Your task to perform on an android device: change notification settings in the gmail app Image 0: 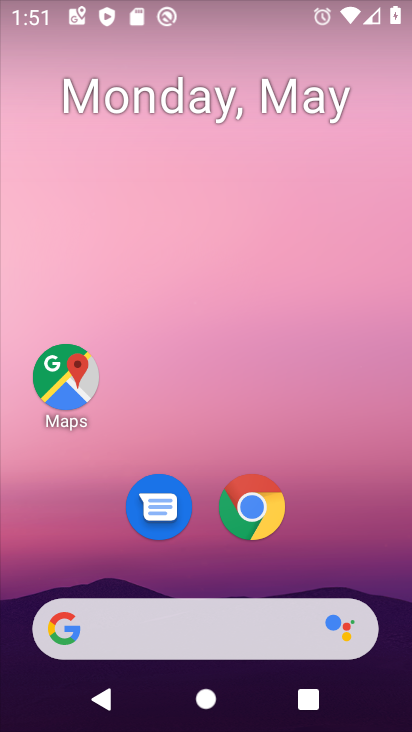
Step 0: drag from (241, 722) to (189, 14)
Your task to perform on an android device: change notification settings in the gmail app Image 1: 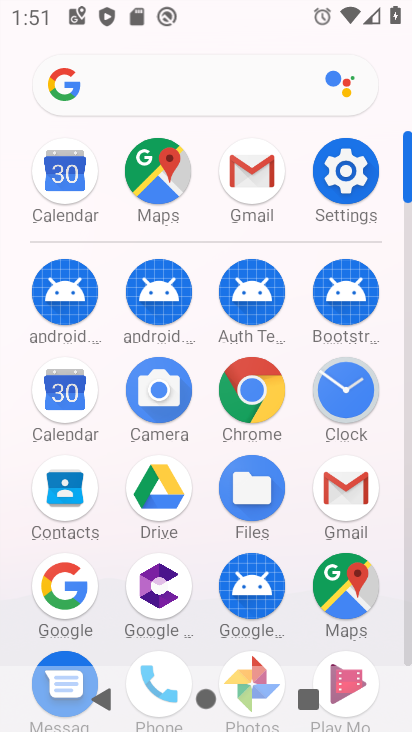
Step 1: drag from (295, 558) to (278, 203)
Your task to perform on an android device: change notification settings in the gmail app Image 2: 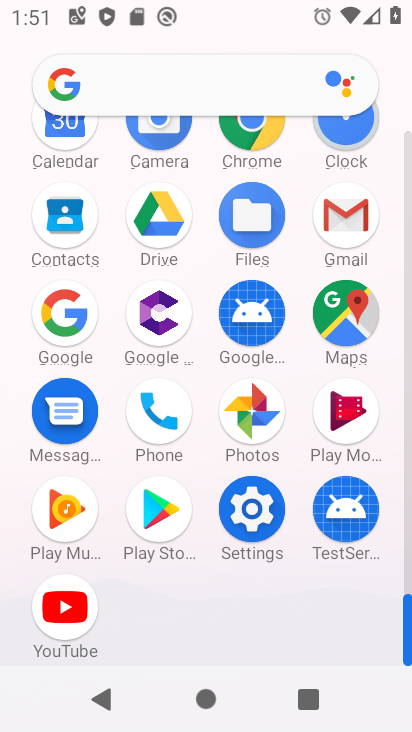
Step 2: click (349, 216)
Your task to perform on an android device: change notification settings in the gmail app Image 3: 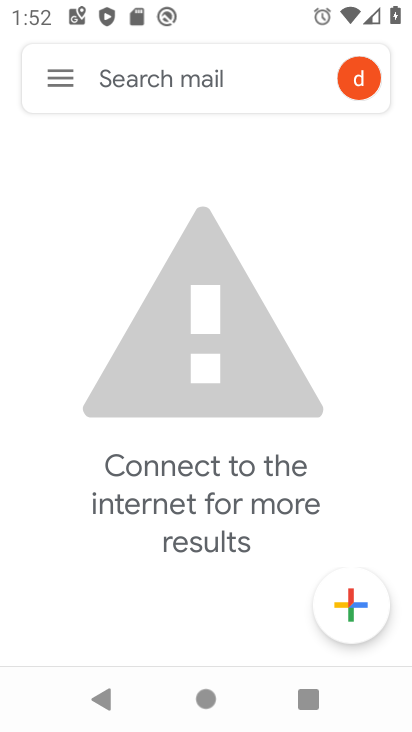
Step 3: click (56, 76)
Your task to perform on an android device: change notification settings in the gmail app Image 4: 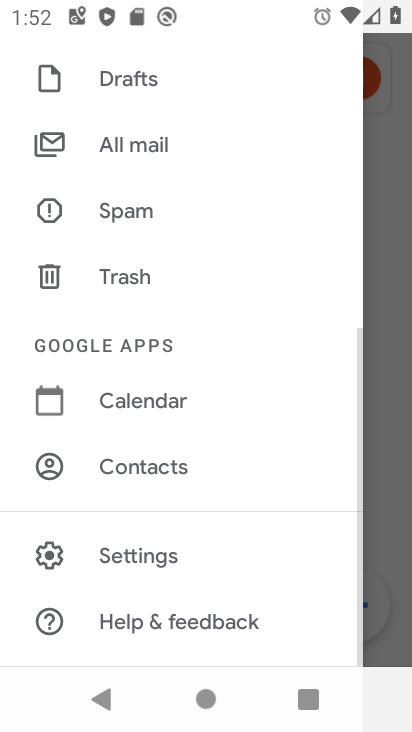
Step 4: click (129, 560)
Your task to perform on an android device: change notification settings in the gmail app Image 5: 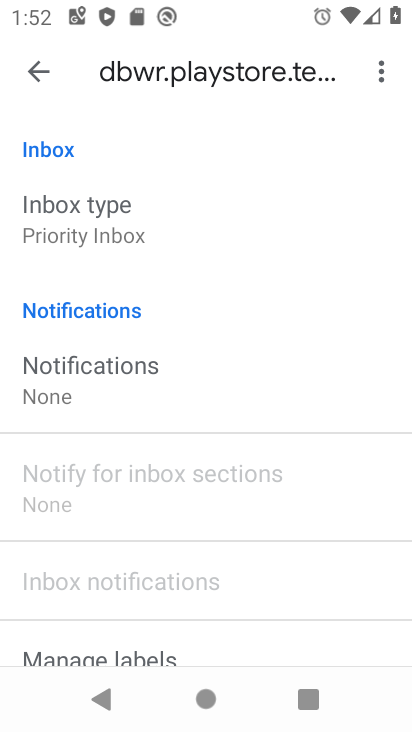
Step 5: drag from (188, 179) to (210, 351)
Your task to perform on an android device: change notification settings in the gmail app Image 6: 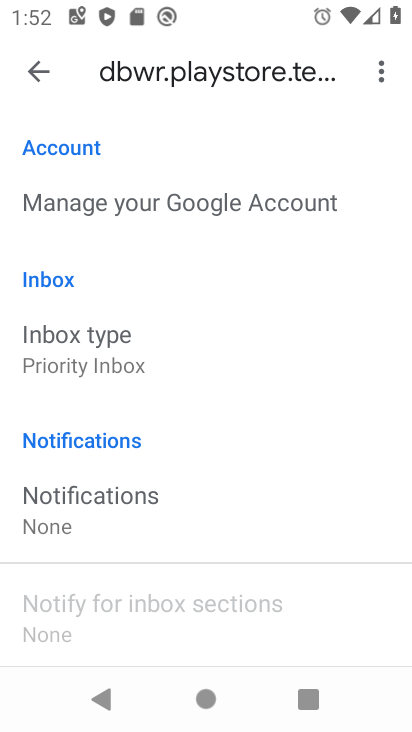
Step 6: click (49, 508)
Your task to perform on an android device: change notification settings in the gmail app Image 7: 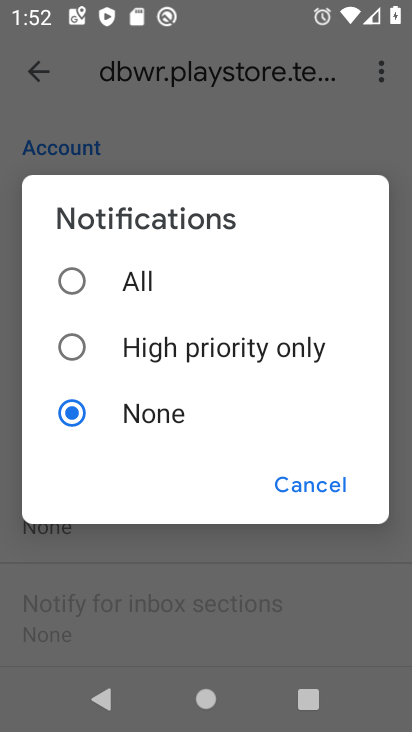
Step 7: click (62, 270)
Your task to perform on an android device: change notification settings in the gmail app Image 8: 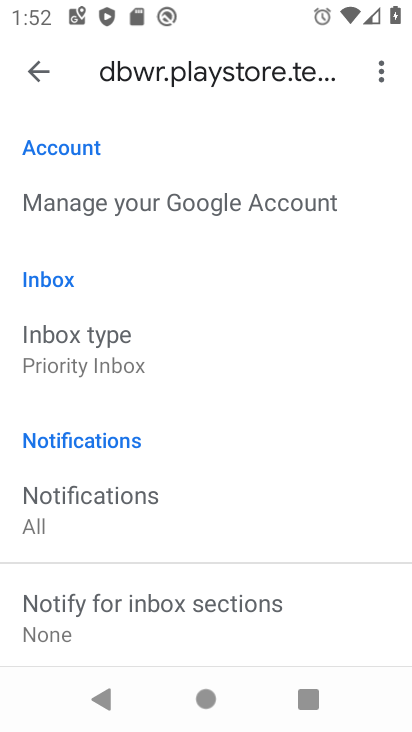
Step 8: task complete